Your task to perform on an android device: Is it going to rain this weekend? Image 0: 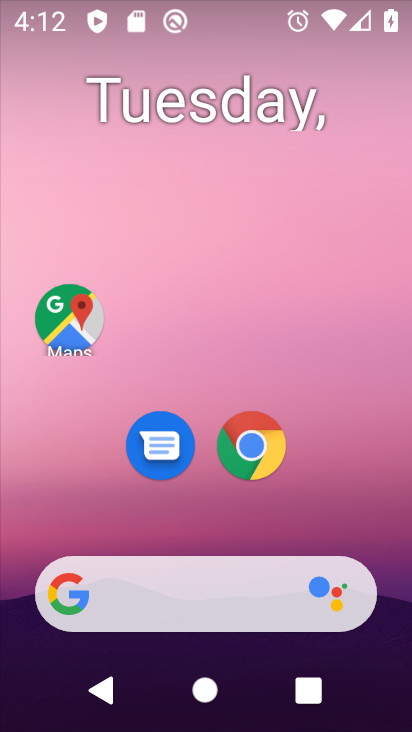
Step 0: drag from (10, 237) to (361, 227)
Your task to perform on an android device: Is it going to rain this weekend? Image 1: 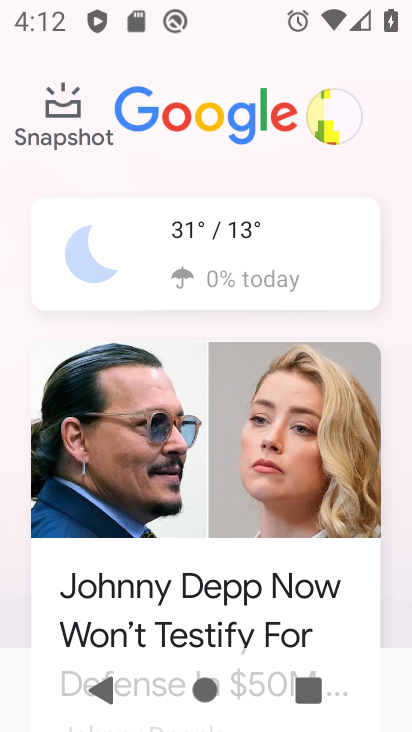
Step 1: click (289, 245)
Your task to perform on an android device: Is it going to rain this weekend? Image 2: 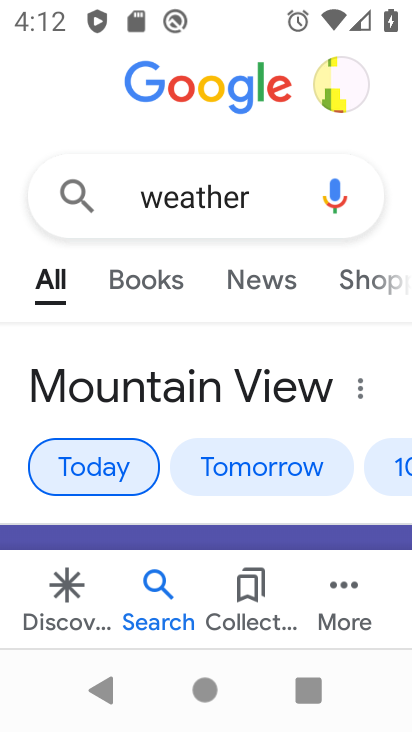
Step 2: click (389, 476)
Your task to perform on an android device: Is it going to rain this weekend? Image 3: 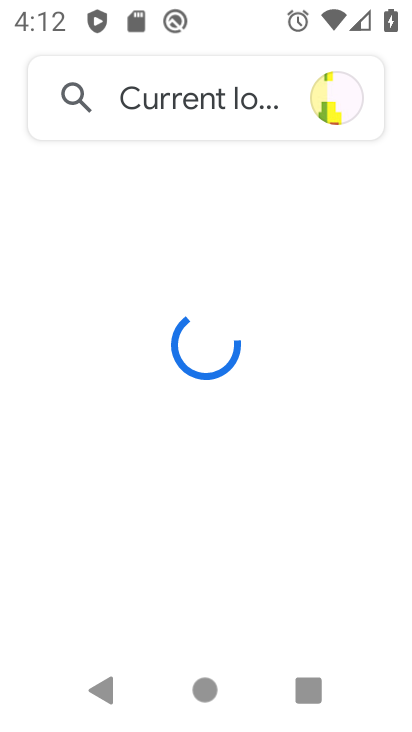
Step 3: click (389, 476)
Your task to perform on an android device: Is it going to rain this weekend? Image 4: 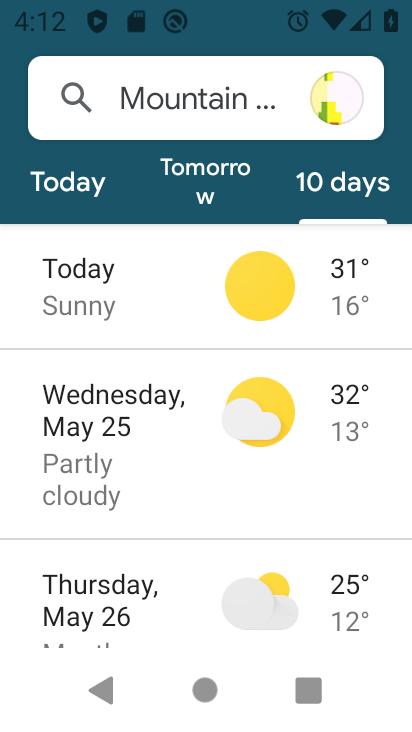
Step 4: task complete